Your task to perform on an android device: refresh tabs in the chrome app Image 0: 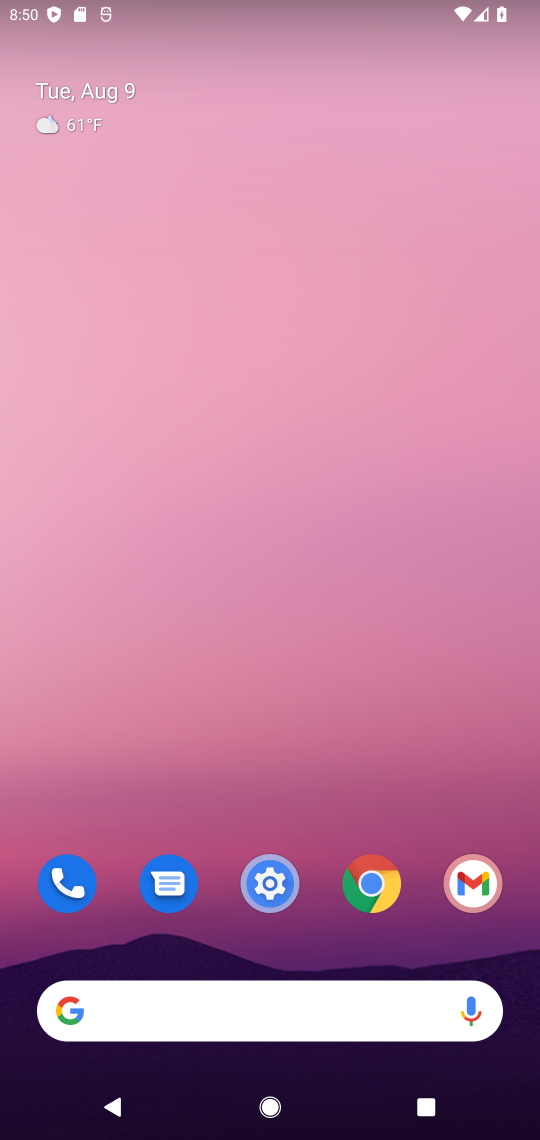
Step 0: drag from (354, 748) to (370, 13)
Your task to perform on an android device: refresh tabs in the chrome app Image 1: 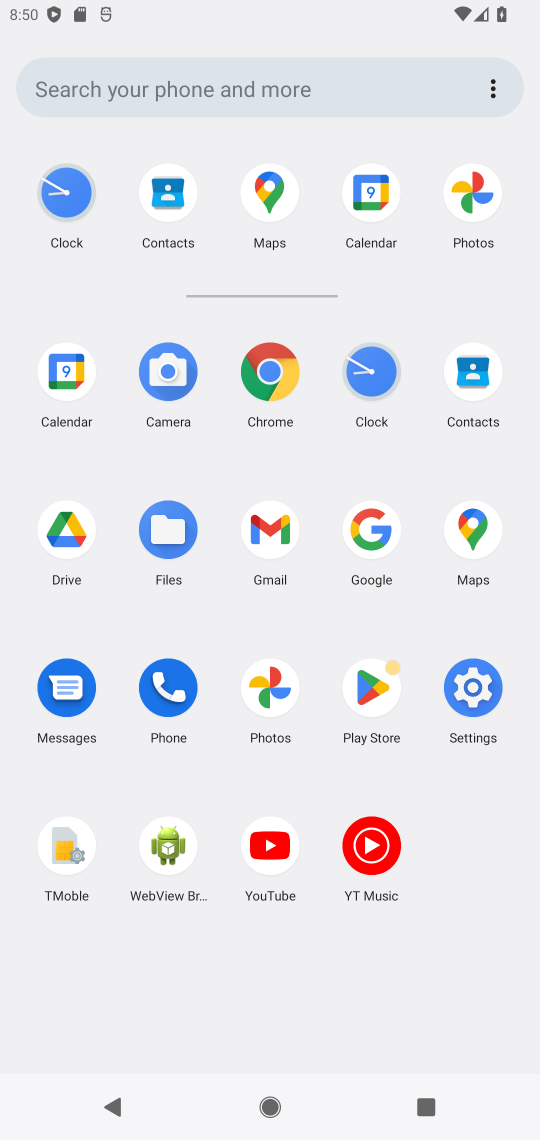
Step 1: click (270, 374)
Your task to perform on an android device: refresh tabs in the chrome app Image 2: 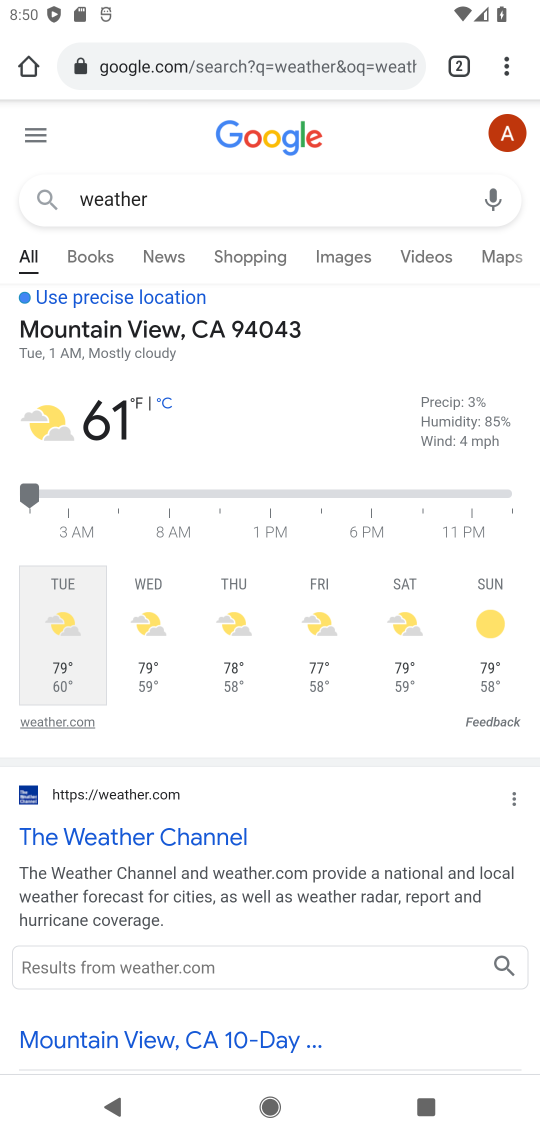
Step 2: click (505, 65)
Your task to perform on an android device: refresh tabs in the chrome app Image 3: 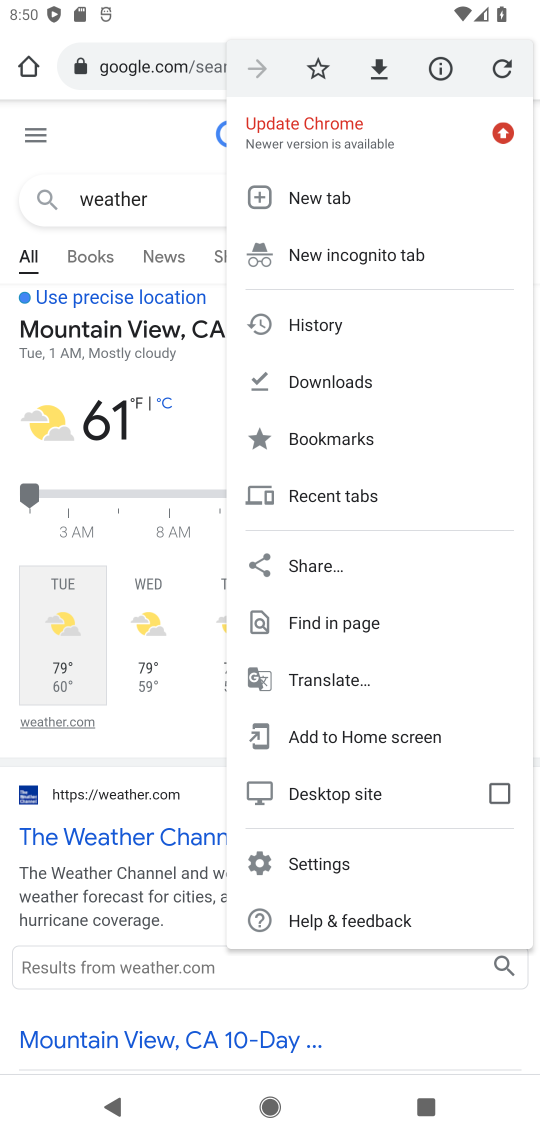
Step 3: click (505, 65)
Your task to perform on an android device: refresh tabs in the chrome app Image 4: 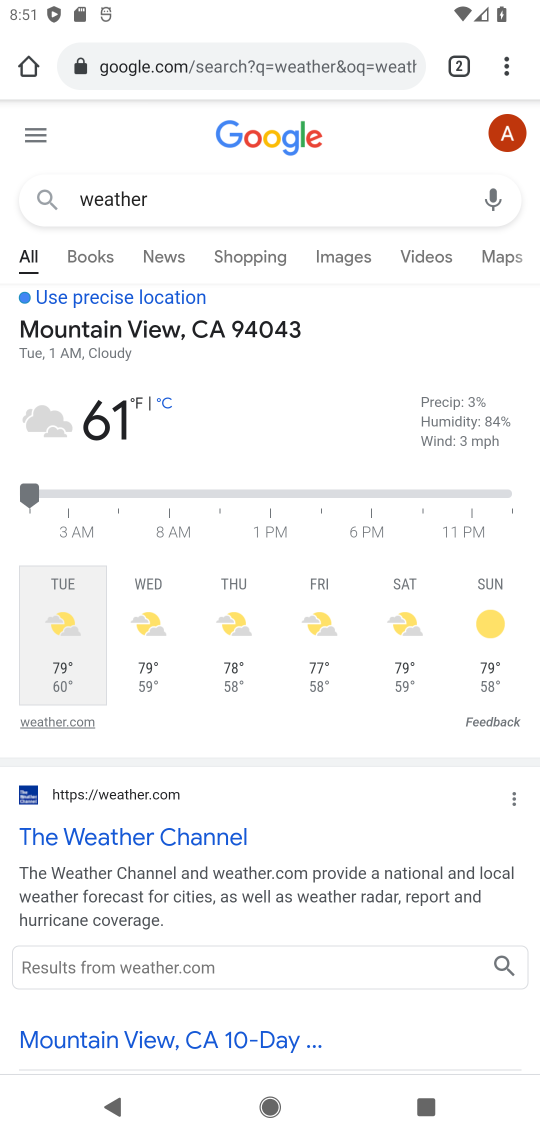
Step 4: task complete